Your task to perform on an android device: Go to Google Image 0: 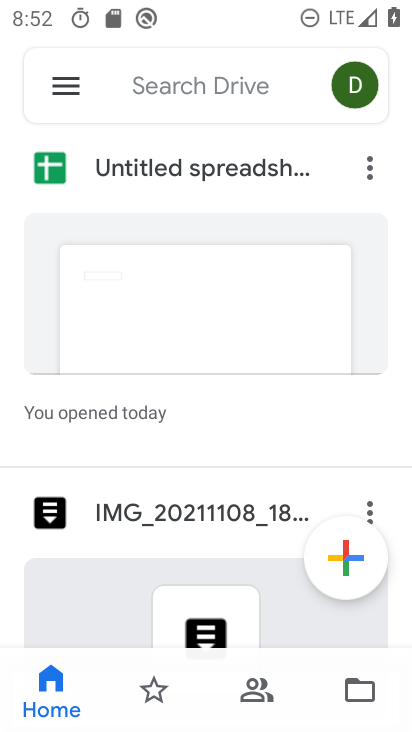
Step 0: press home button
Your task to perform on an android device: Go to Google Image 1: 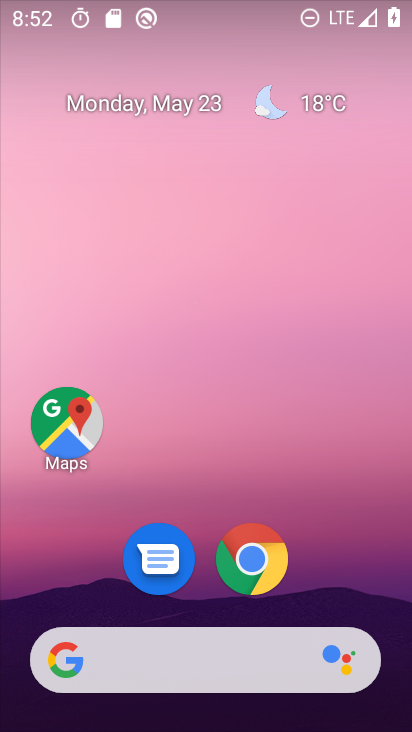
Step 1: drag from (391, 670) to (289, 139)
Your task to perform on an android device: Go to Google Image 2: 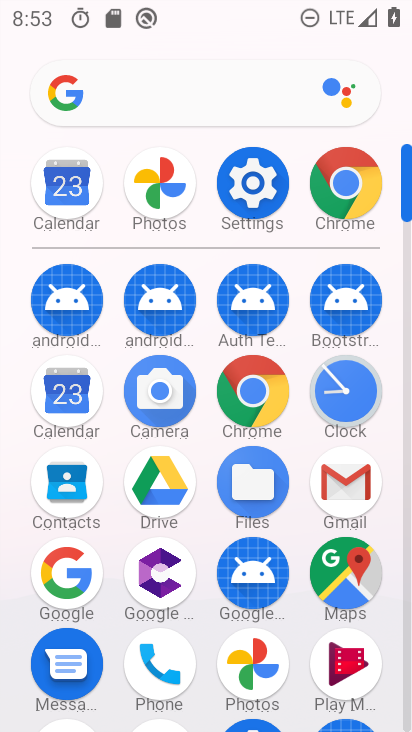
Step 2: click (74, 572)
Your task to perform on an android device: Go to Google Image 3: 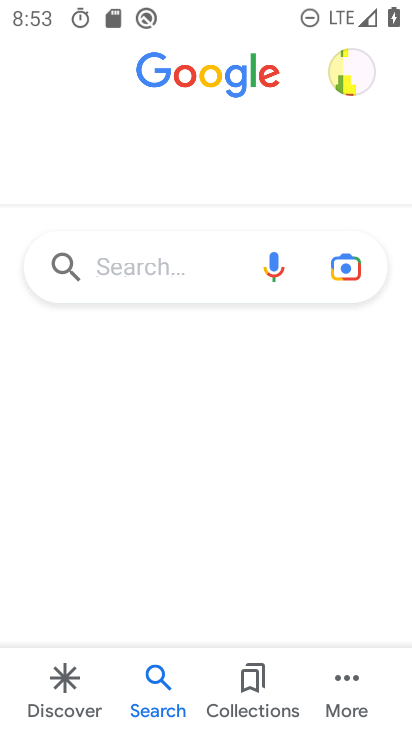
Step 3: task complete